Your task to perform on an android device: move a message to another label in the gmail app Image 0: 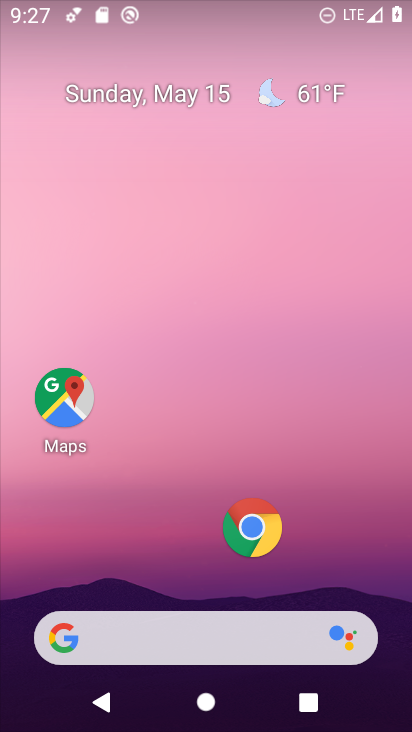
Step 0: drag from (210, 580) to (164, 15)
Your task to perform on an android device: move a message to another label in the gmail app Image 1: 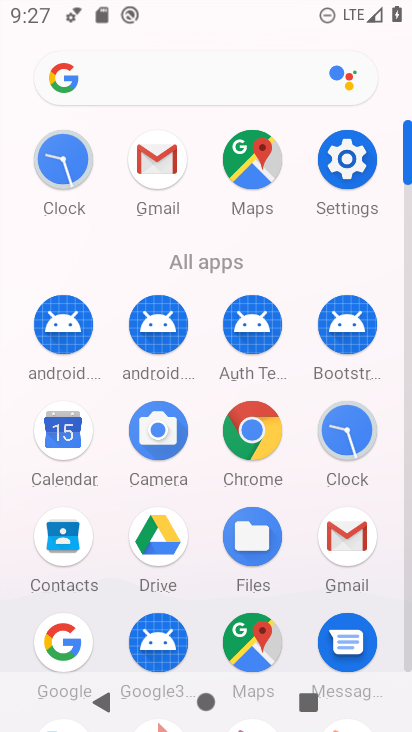
Step 1: click (153, 155)
Your task to perform on an android device: move a message to another label in the gmail app Image 2: 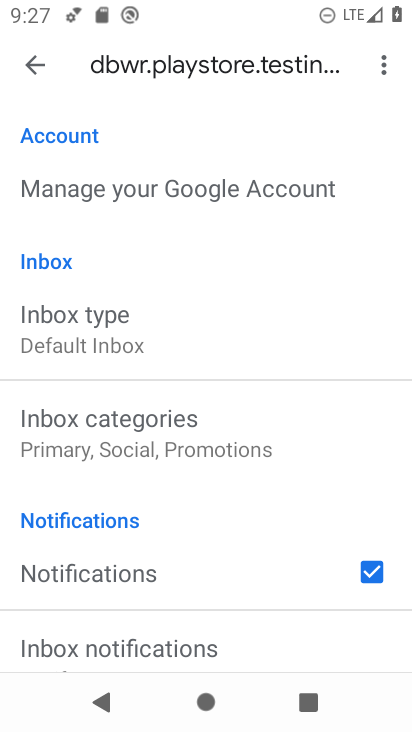
Step 2: click (29, 62)
Your task to perform on an android device: move a message to another label in the gmail app Image 3: 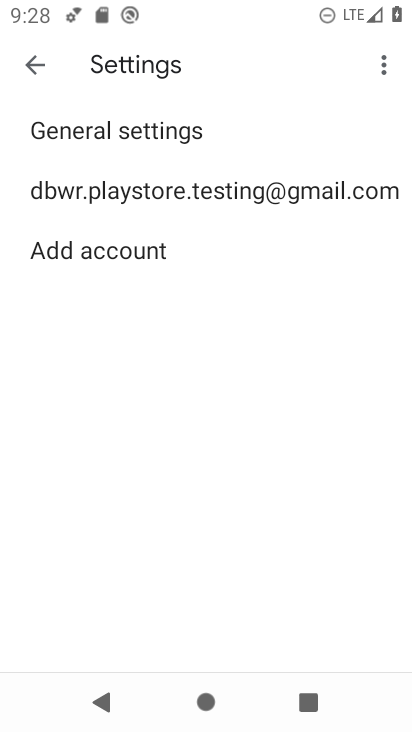
Step 3: click (39, 60)
Your task to perform on an android device: move a message to another label in the gmail app Image 4: 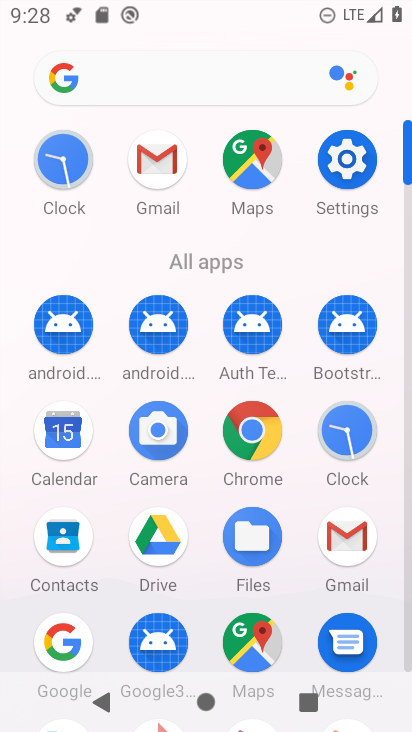
Step 4: click (152, 161)
Your task to perform on an android device: move a message to another label in the gmail app Image 5: 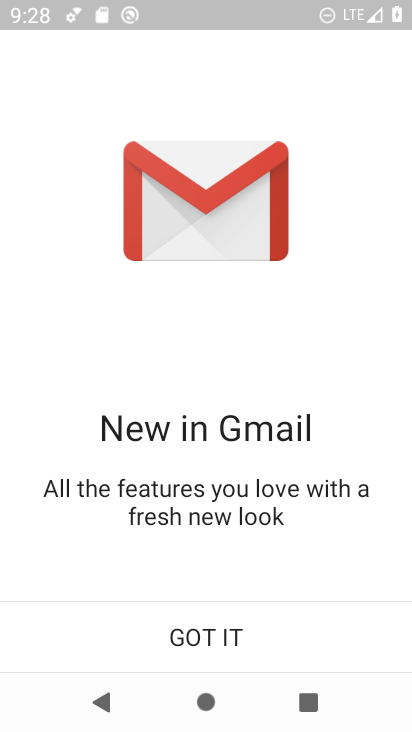
Step 5: click (216, 635)
Your task to perform on an android device: move a message to another label in the gmail app Image 6: 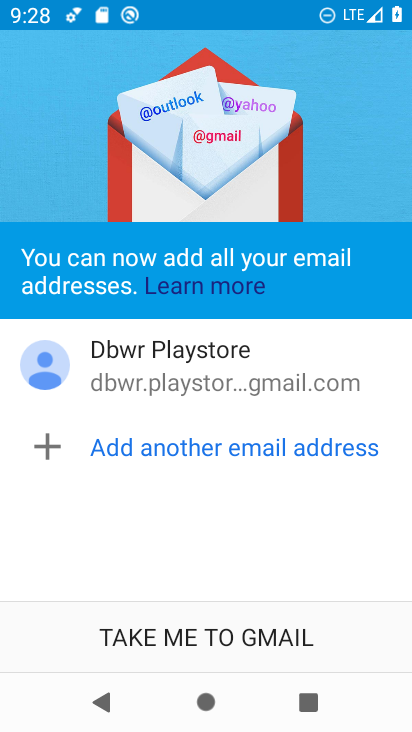
Step 6: click (218, 620)
Your task to perform on an android device: move a message to another label in the gmail app Image 7: 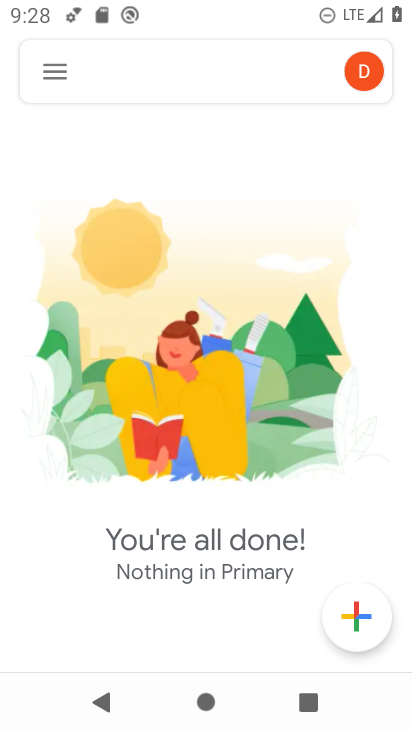
Step 7: task complete